Your task to perform on an android device: Toggle the flashlight Image 0: 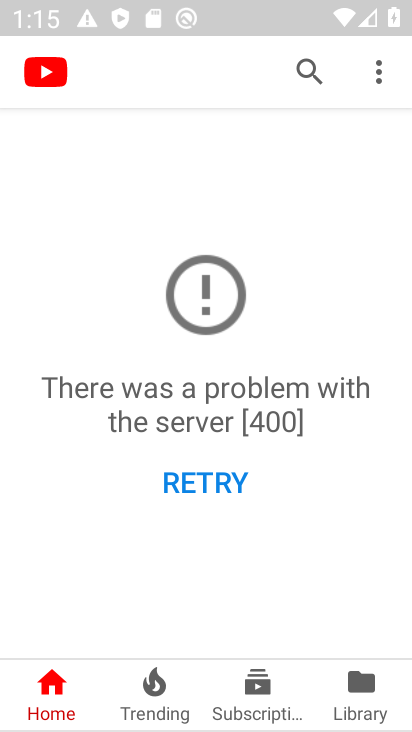
Step 0: press home button
Your task to perform on an android device: Toggle the flashlight Image 1: 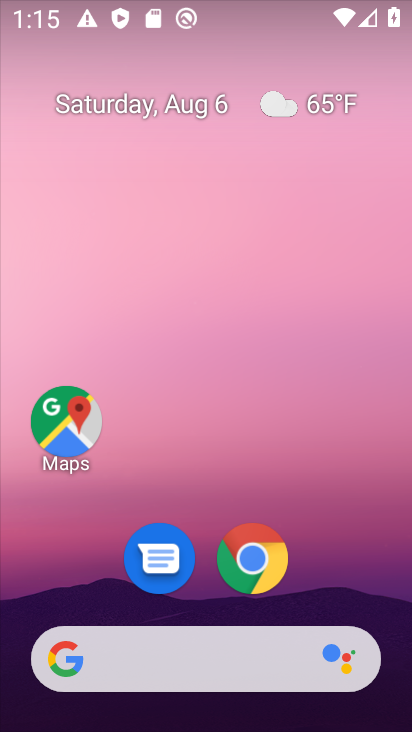
Step 1: task complete